Your task to perform on an android device: Open ESPN.com Image 0: 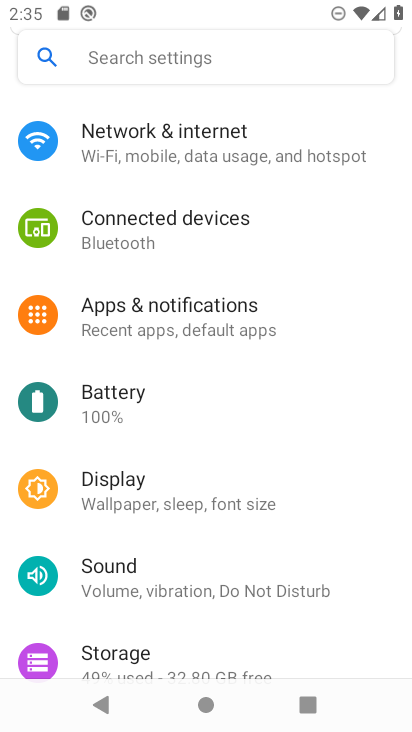
Step 0: press home button
Your task to perform on an android device: Open ESPN.com Image 1: 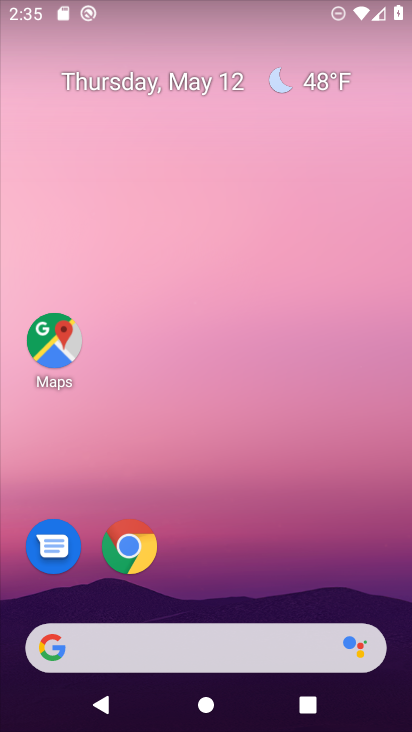
Step 1: drag from (237, 701) to (212, 160)
Your task to perform on an android device: Open ESPN.com Image 2: 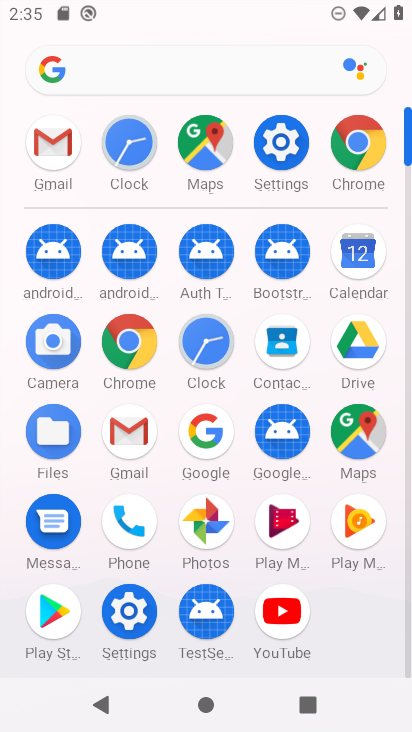
Step 2: click (334, 166)
Your task to perform on an android device: Open ESPN.com Image 3: 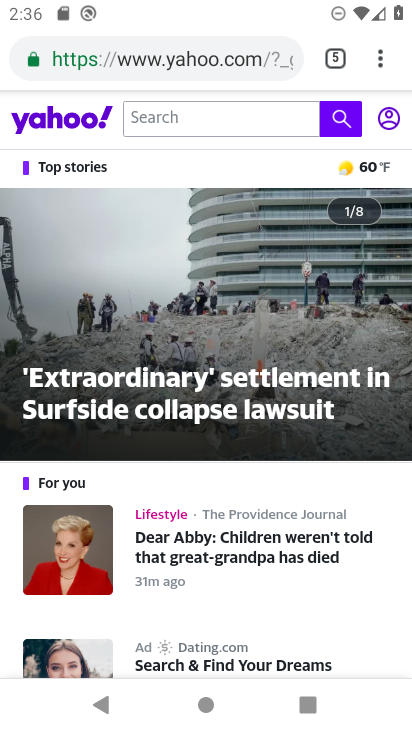
Step 3: click (188, 73)
Your task to perform on an android device: Open ESPN.com Image 4: 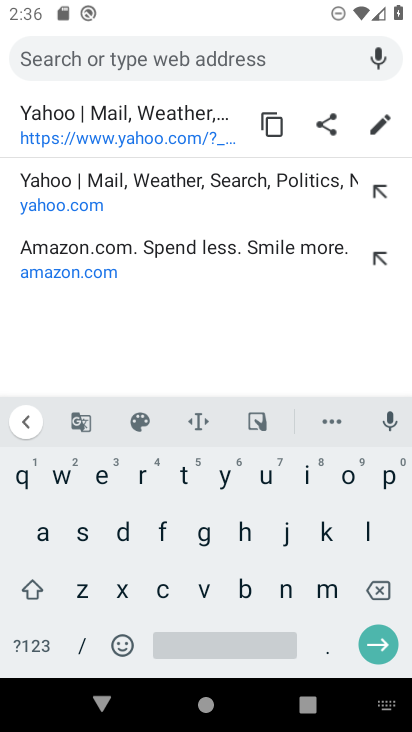
Step 4: click (97, 480)
Your task to perform on an android device: Open ESPN.com Image 5: 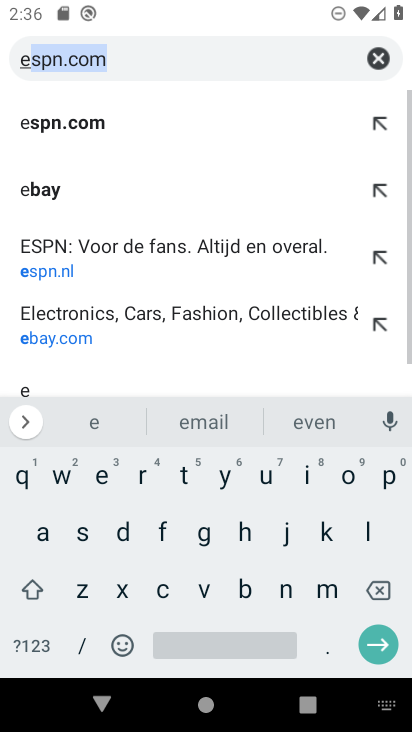
Step 5: click (75, 547)
Your task to perform on an android device: Open ESPN.com Image 6: 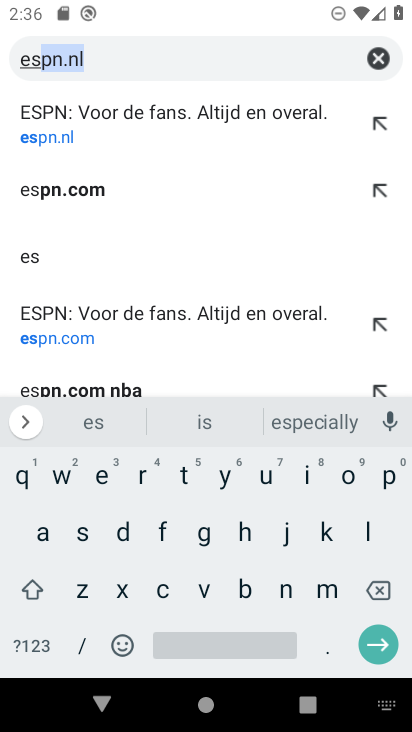
Step 6: click (99, 184)
Your task to perform on an android device: Open ESPN.com Image 7: 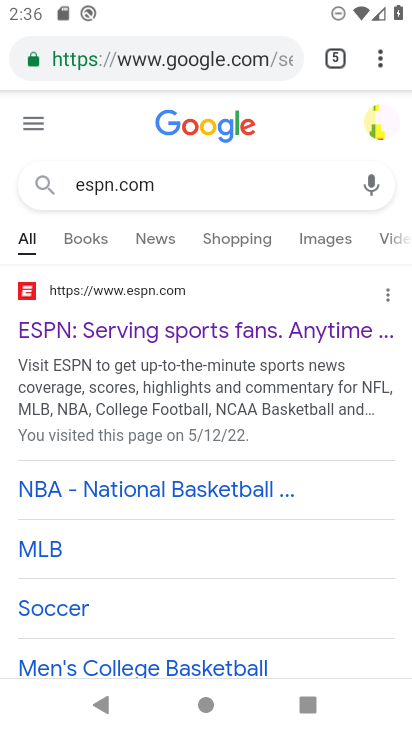
Step 7: click (164, 329)
Your task to perform on an android device: Open ESPN.com Image 8: 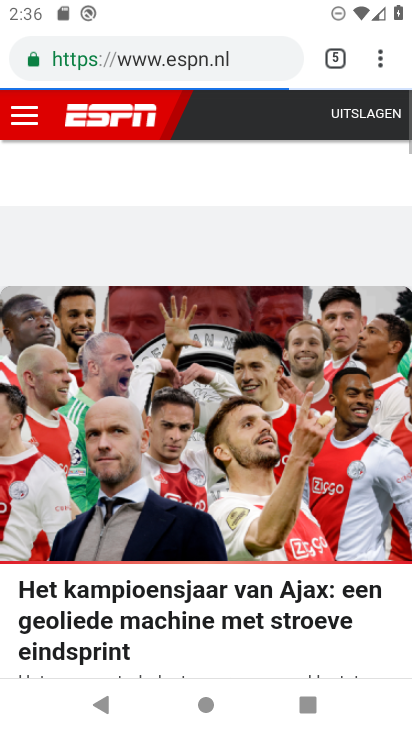
Step 8: task complete